Your task to perform on an android device: Show me the alarms in the clock app Image 0: 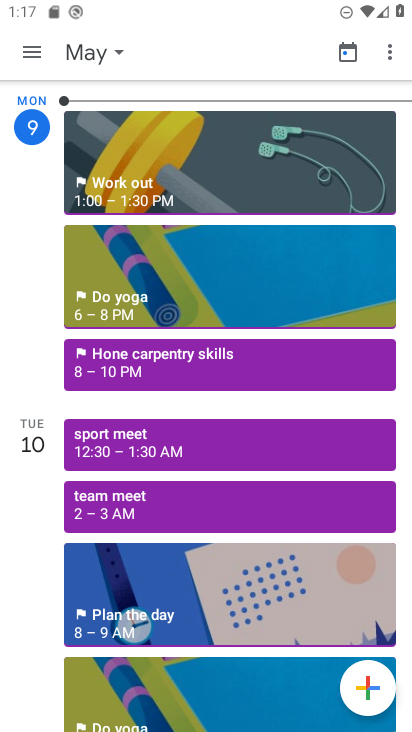
Step 0: press back button
Your task to perform on an android device: Show me the alarms in the clock app Image 1: 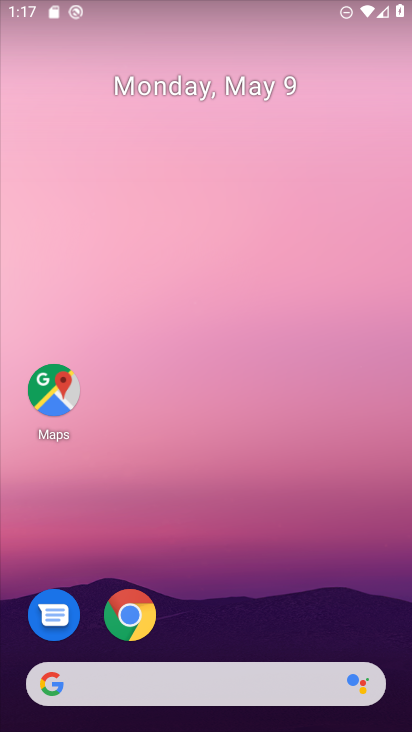
Step 1: drag from (265, 598) to (266, 41)
Your task to perform on an android device: Show me the alarms in the clock app Image 2: 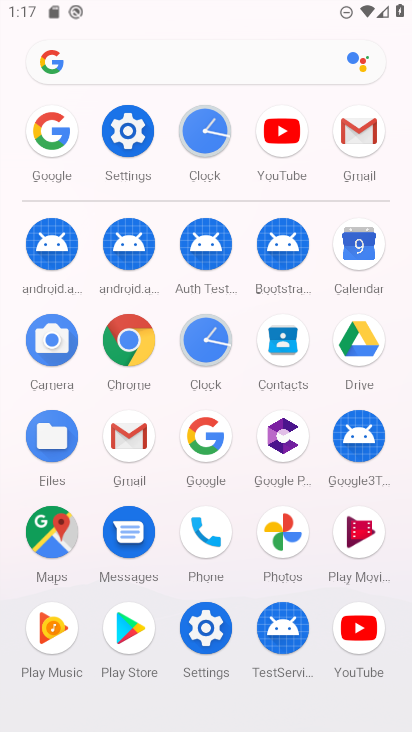
Step 2: click (205, 134)
Your task to perform on an android device: Show me the alarms in the clock app Image 3: 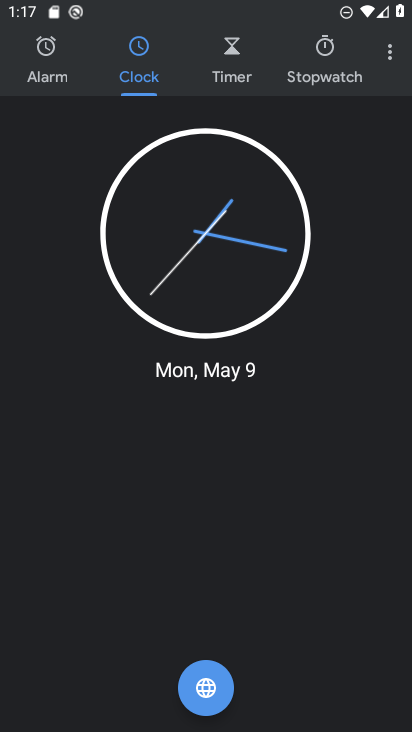
Step 3: click (42, 54)
Your task to perform on an android device: Show me the alarms in the clock app Image 4: 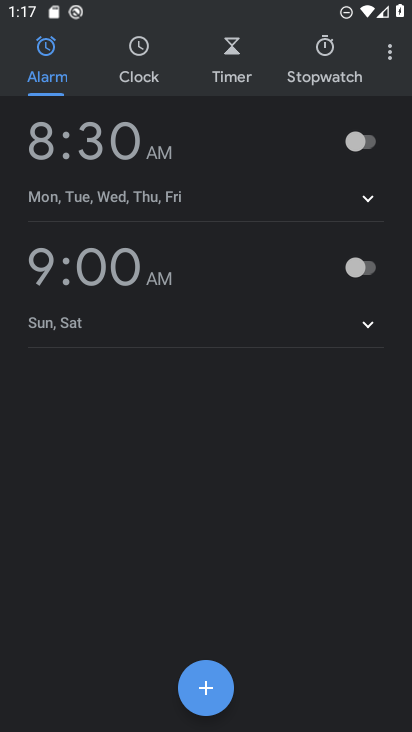
Step 4: task complete